Your task to perform on an android device: turn on bluetooth scan Image 0: 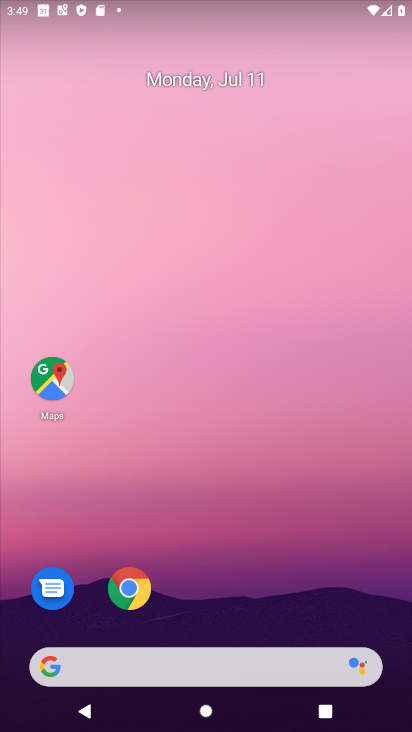
Step 0: drag from (271, 655) to (64, 9)
Your task to perform on an android device: turn on bluetooth scan Image 1: 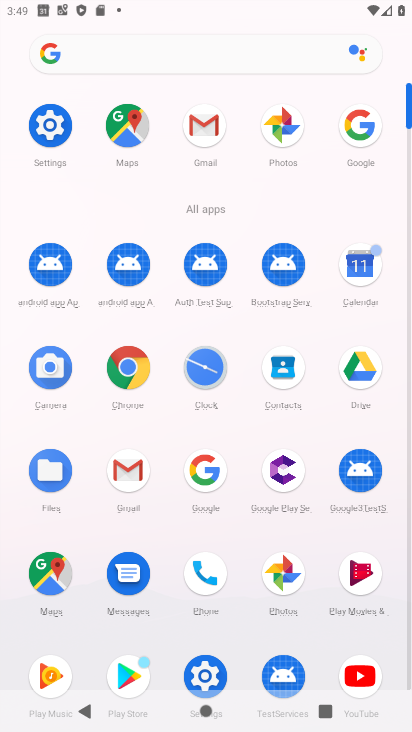
Step 1: click (61, 138)
Your task to perform on an android device: turn on bluetooth scan Image 2: 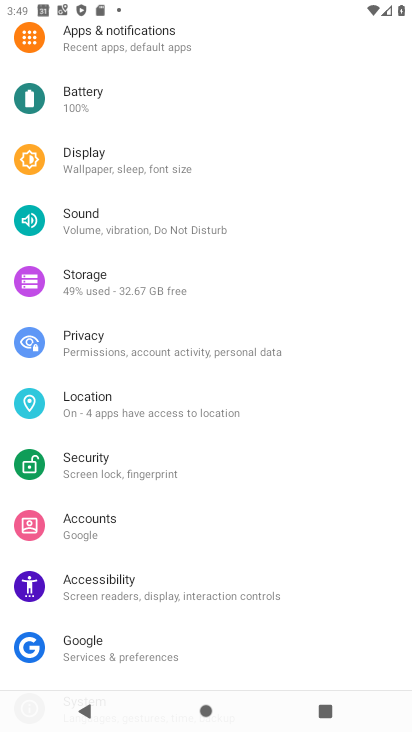
Step 2: click (133, 398)
Your task to perform on an android device: turn on bluetooth scan Image 3: 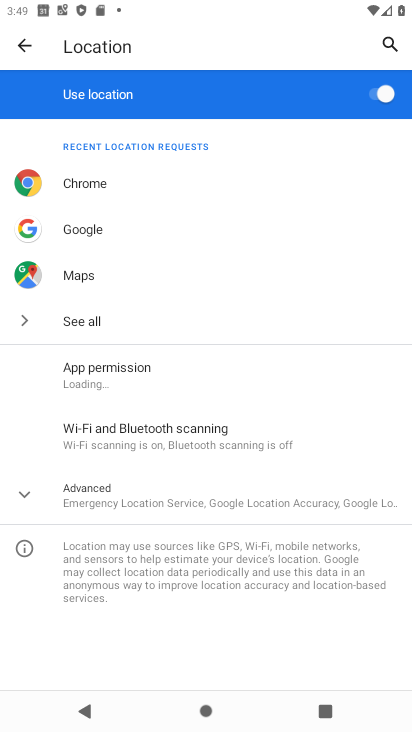
Step 3: click (195, 449)
Your task to perform on an android device: turn on bluetooth scan Image 4: 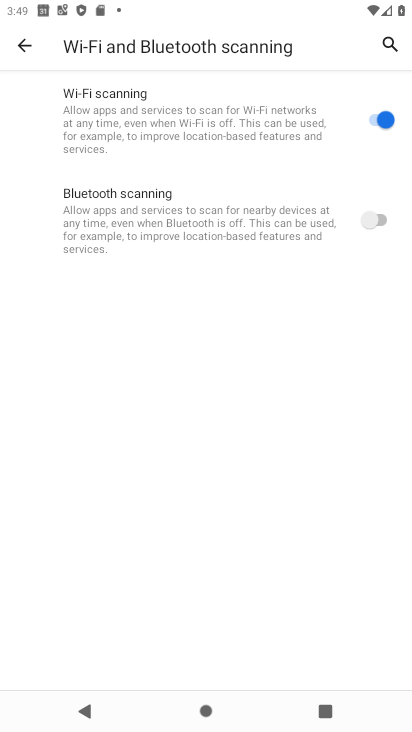
Step 4: click (376, 220)
Your task to perform on an android device: turn on bluetooth scan Image 5: 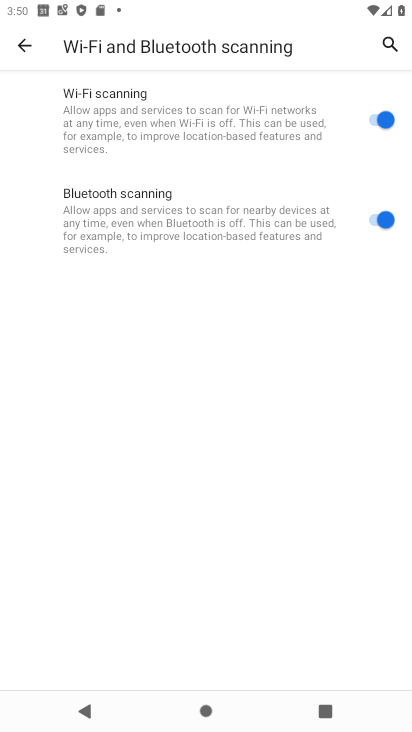
Step 5: task complete